Your task to perform on an android device: change keyboard looks Image 0: 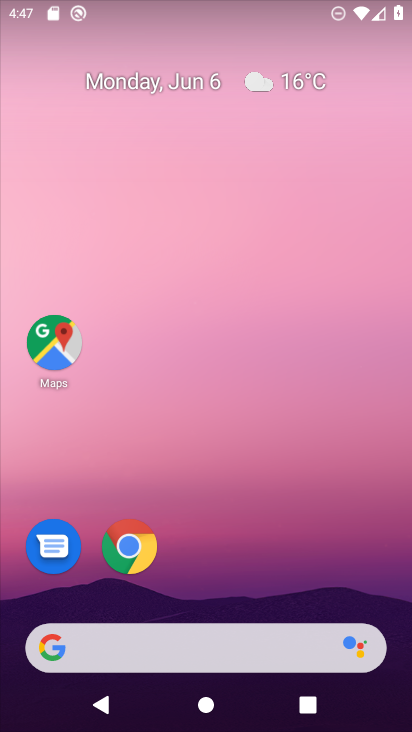
Step 0: drag from (204, 605) to (206, 19)
Your task to perform on an android device: change keyboard looks Image 1: 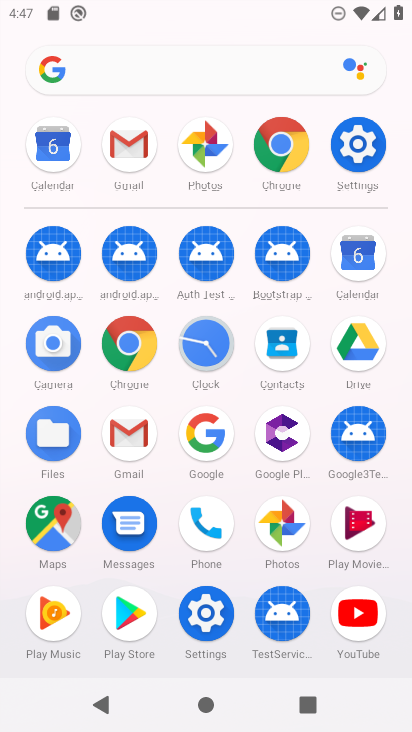
Step 1: click (354, 151)
Your task to perform on an android device: change keyboard looks Image 2: 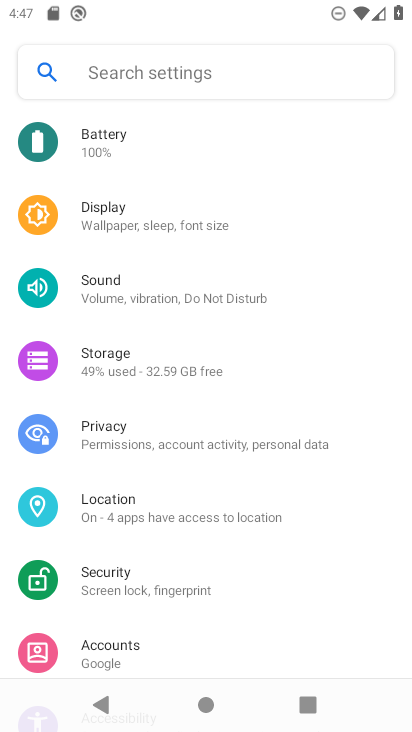
Step 2: drag from (276, 144) to (228, 523)
Your task to perform on an android device: change keyboard looks Image 3: 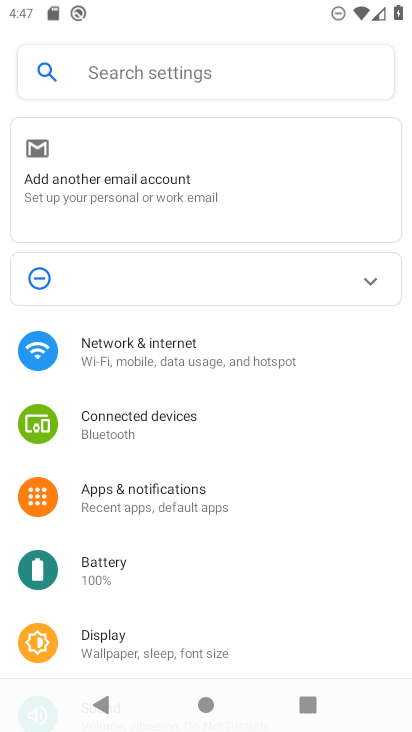
Step 3: drag from (221, 505) to (179, 51)
Your task to perform on an android device: change keyboard looks Image 4: 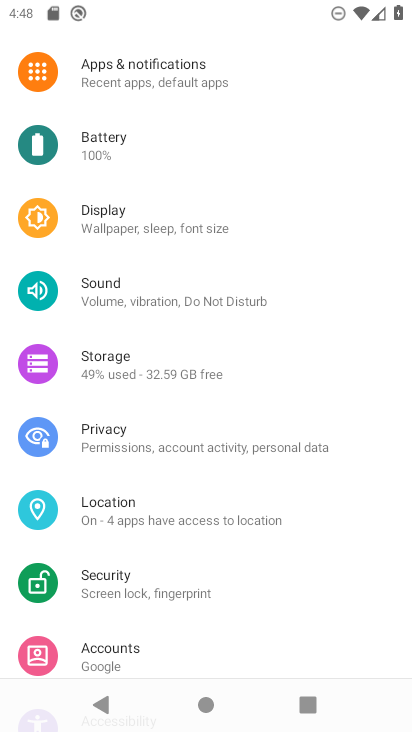
Step 4: drag from (215, 517) to (195, 55)
Your task to perform on an android device: change keyboard looks Image 5: 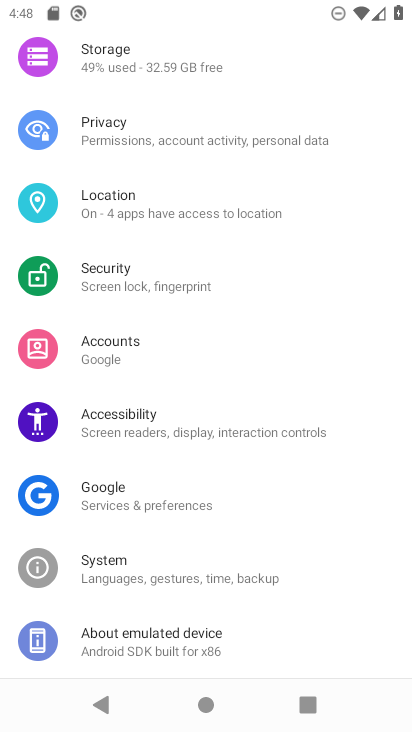
Step 5: click (126, 566)
Your task to perform on an android device: change keyboard looks Image 6: 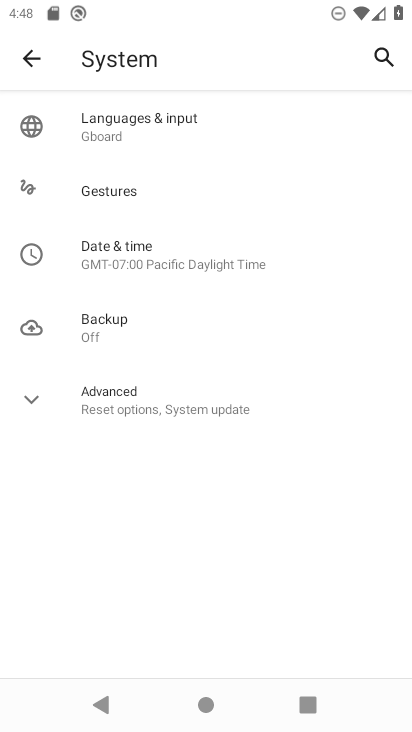
Step 6: click (118, 403)
Your task to perform on an android device: change keyboard looks Image 7: 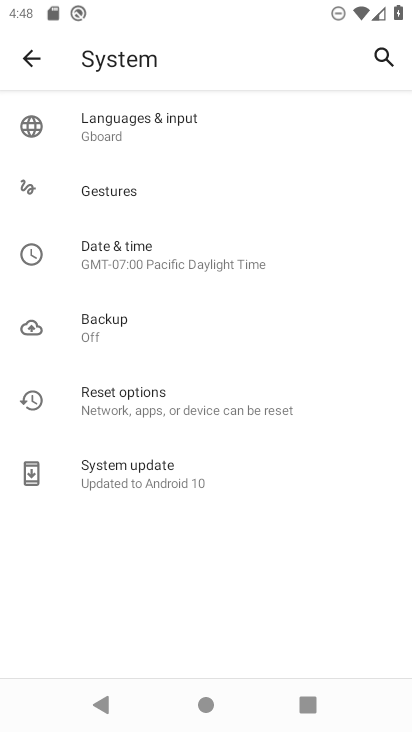
Step 7: click (170, 102)
Your task to perform on an android device: change keyboard looks Image 8: 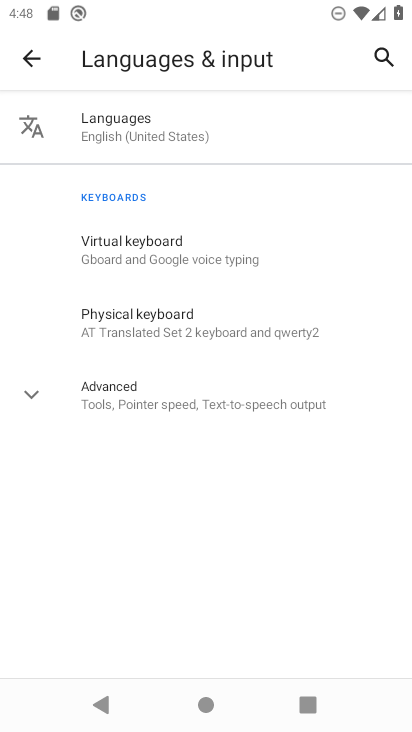
Step 8: click (118, 227)
Your task to perform on an android device: change keyboard looks Image 9: 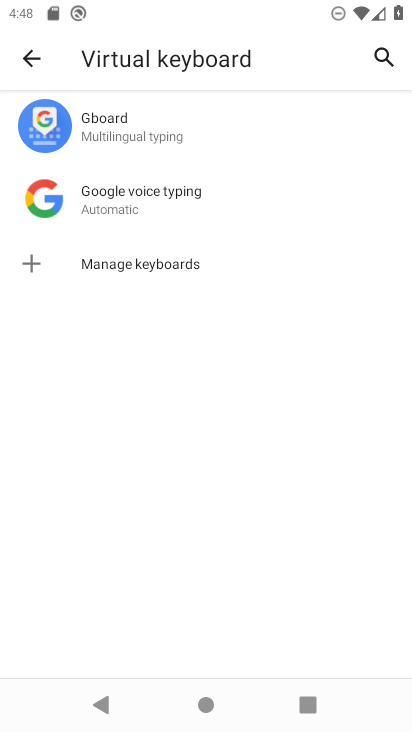
Step 9: click (128, 137)
Your task to perform on an android device: change keyboard looks Image 10: 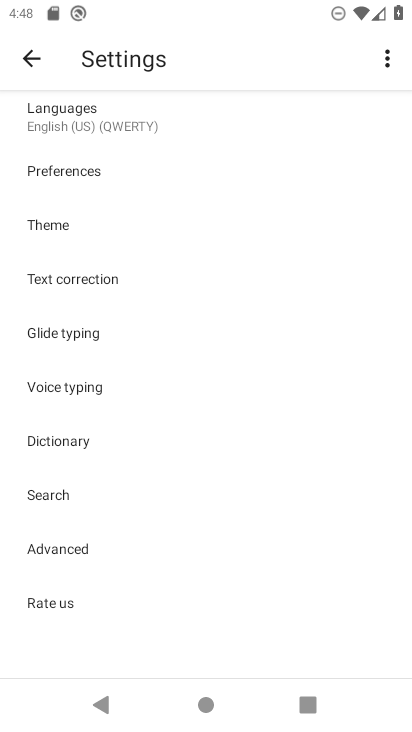
Step 10: click (55, 237)
Your task to perform on an android device: change keyboard looks Image 11: 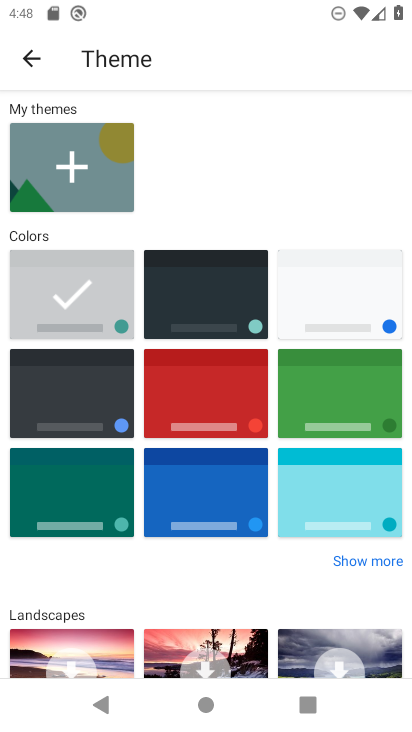
Step 11: click (203, 417)
Your task to perform on an android device: change keyboard looks Image 12: 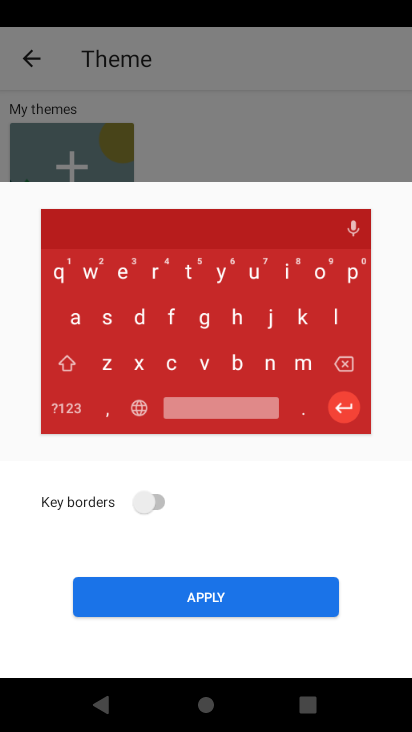
Step 12: click (250, 589)
Your task to perform on an android device: change keyboard looks Image 13: 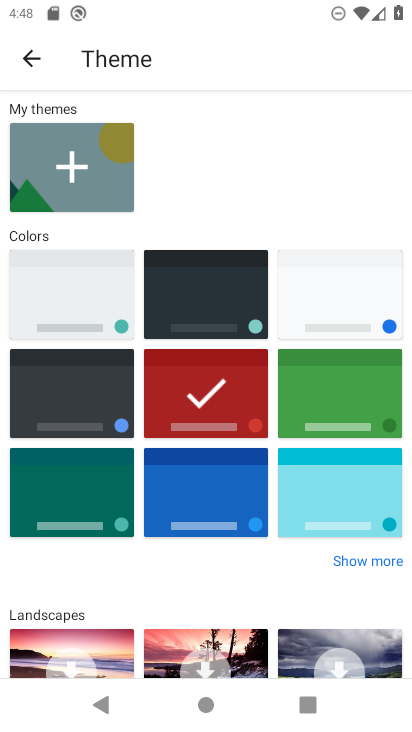
Step 13: task complete